Your task to perform on an android device: turn off wifi Image 0: 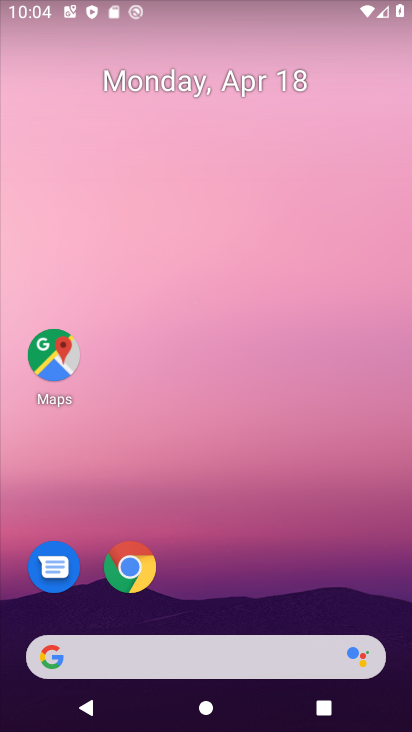
Step 0: drag from (330, 358) to (331, 142)
Your task to perform on an android device: turn off wifi Image 1: 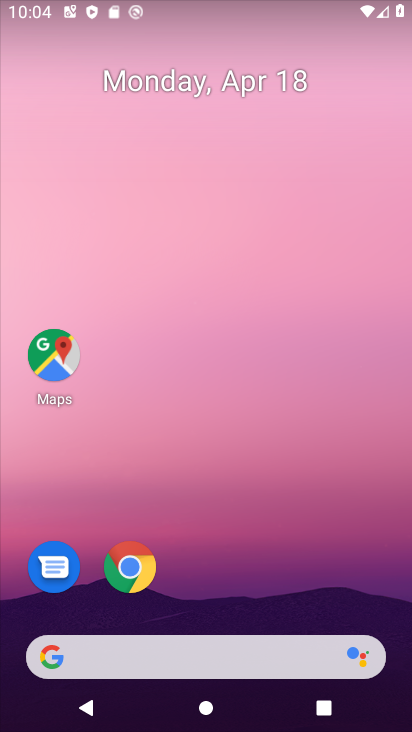
Step 1: drag from (340, 572) to (303, 146)
Your task to perform on an android device: turn off wifi Image 2: 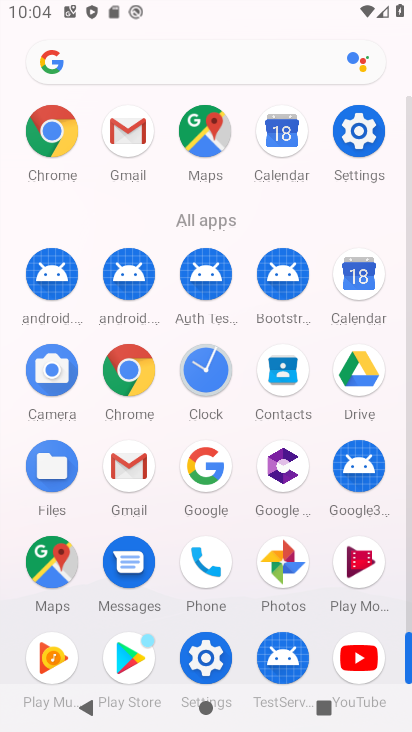
Step 2: click (356, 145)
Your task to perform on an android device: turn off wifi Image 3: 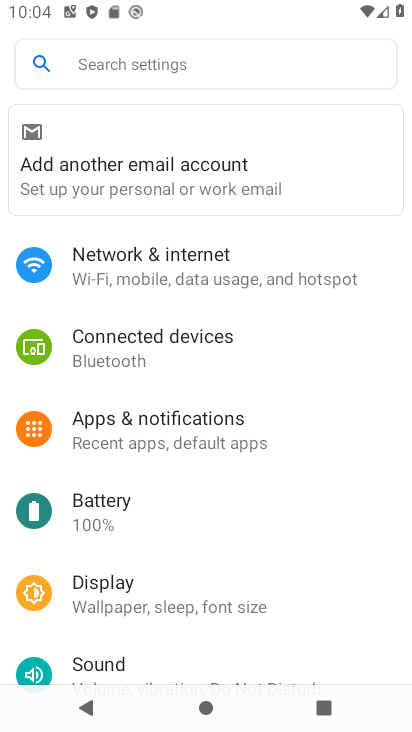
Step 3: click (185, 269)
Your task to perform on an android device: turn off wifi Image 4: 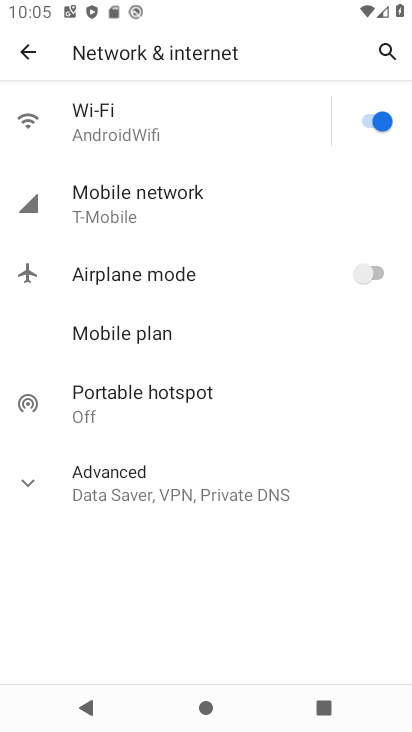
Step 4: click (367, 122)
Your task to perform on an android device: turn off wifi Image 5: 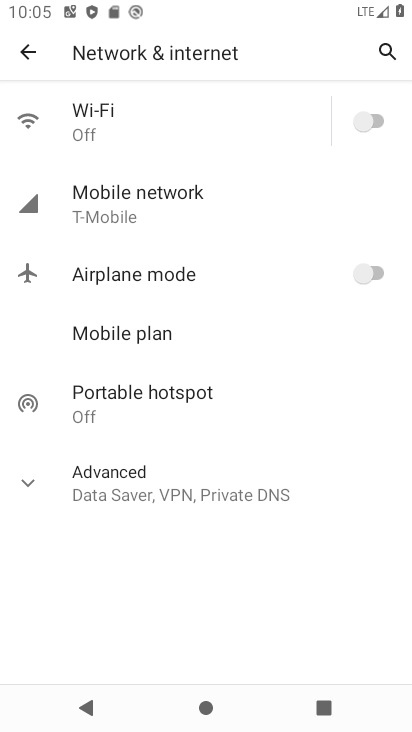
Step 5: task complete